Your task to perform on an android device: Google the capital of Canada Image 0: 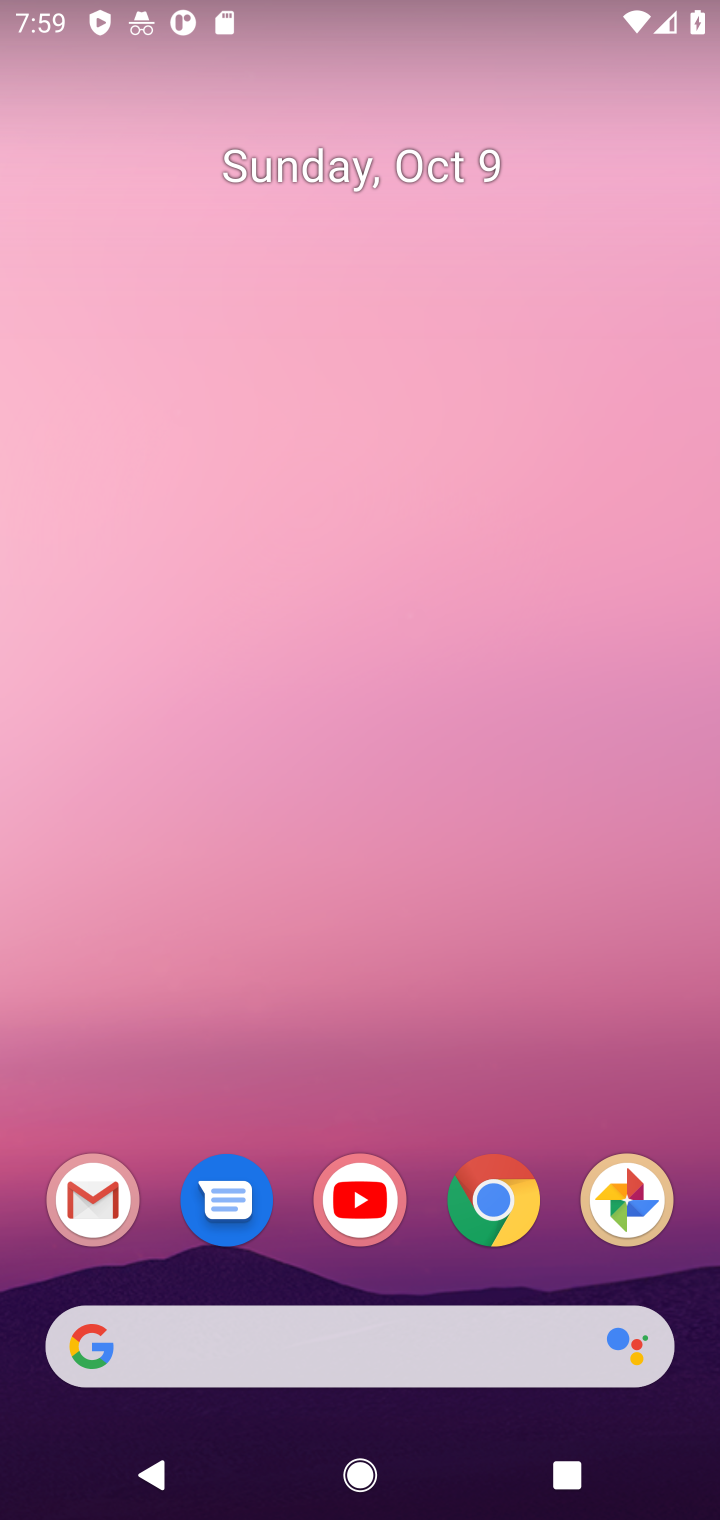
Step 0: click (512, 1218)
Your task to perform on an android device: Google the capital of Canada Image 1: 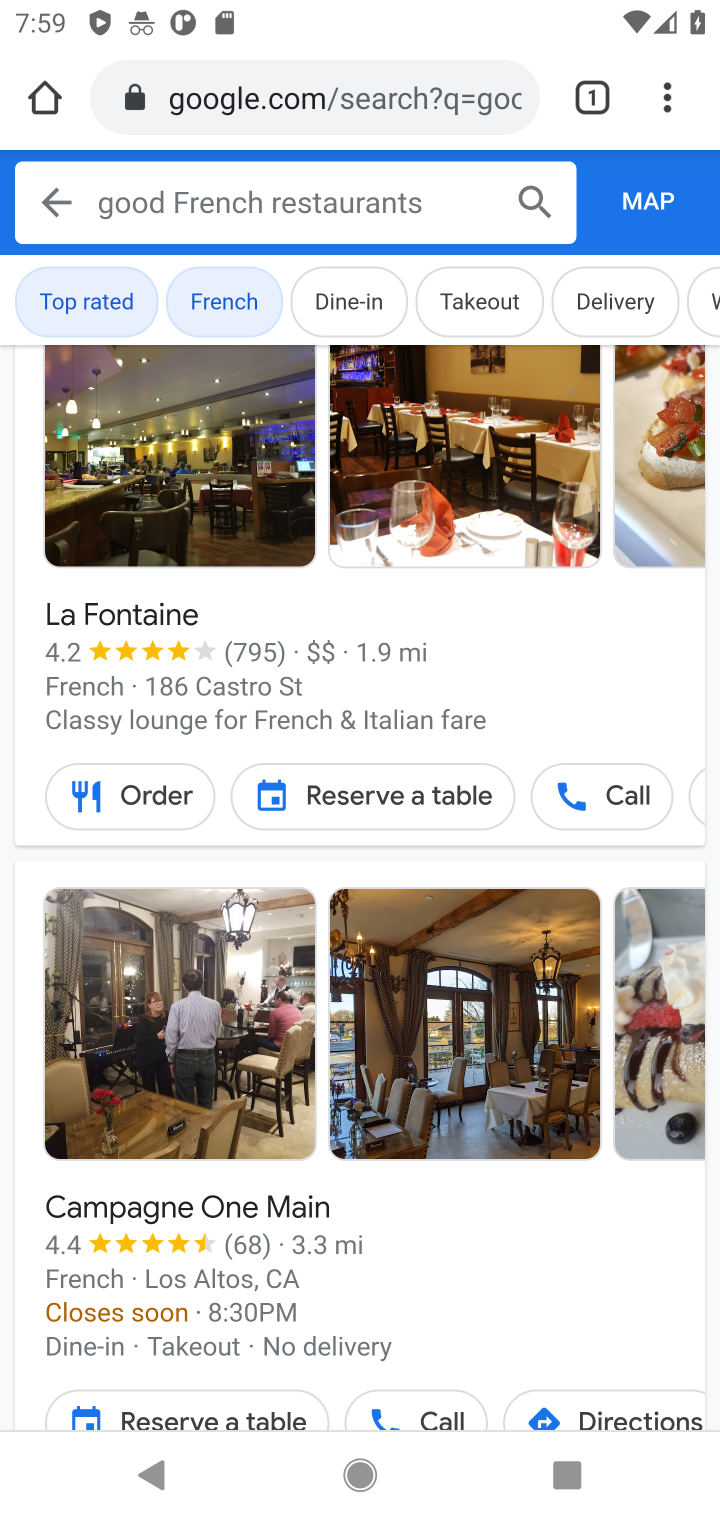
Step 1: click (368, 92)
Your task to perform on an android device: Google the capital of Canada Image 2: 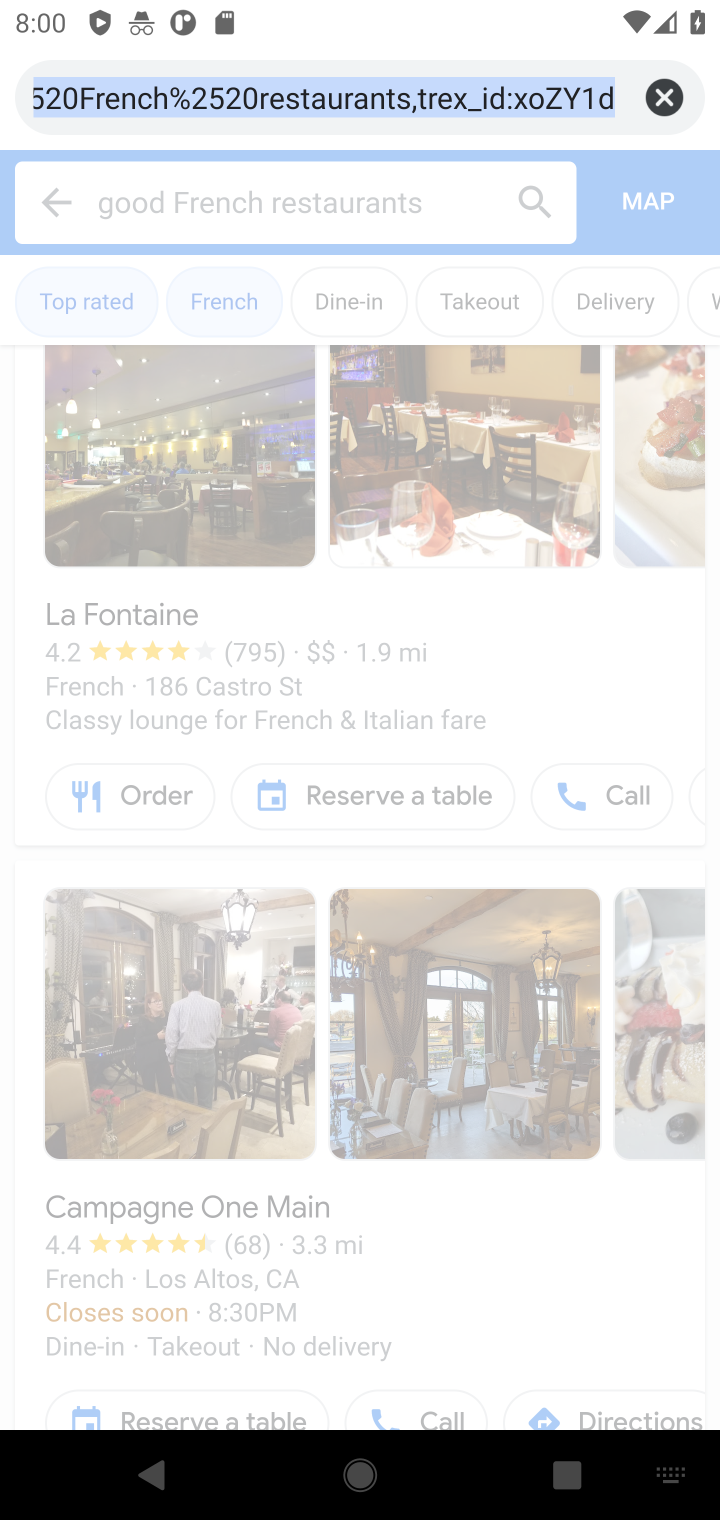
Step 2: type "capital of Canada"
Your task to perform on an android device: Google the capital of Canada Image 3: 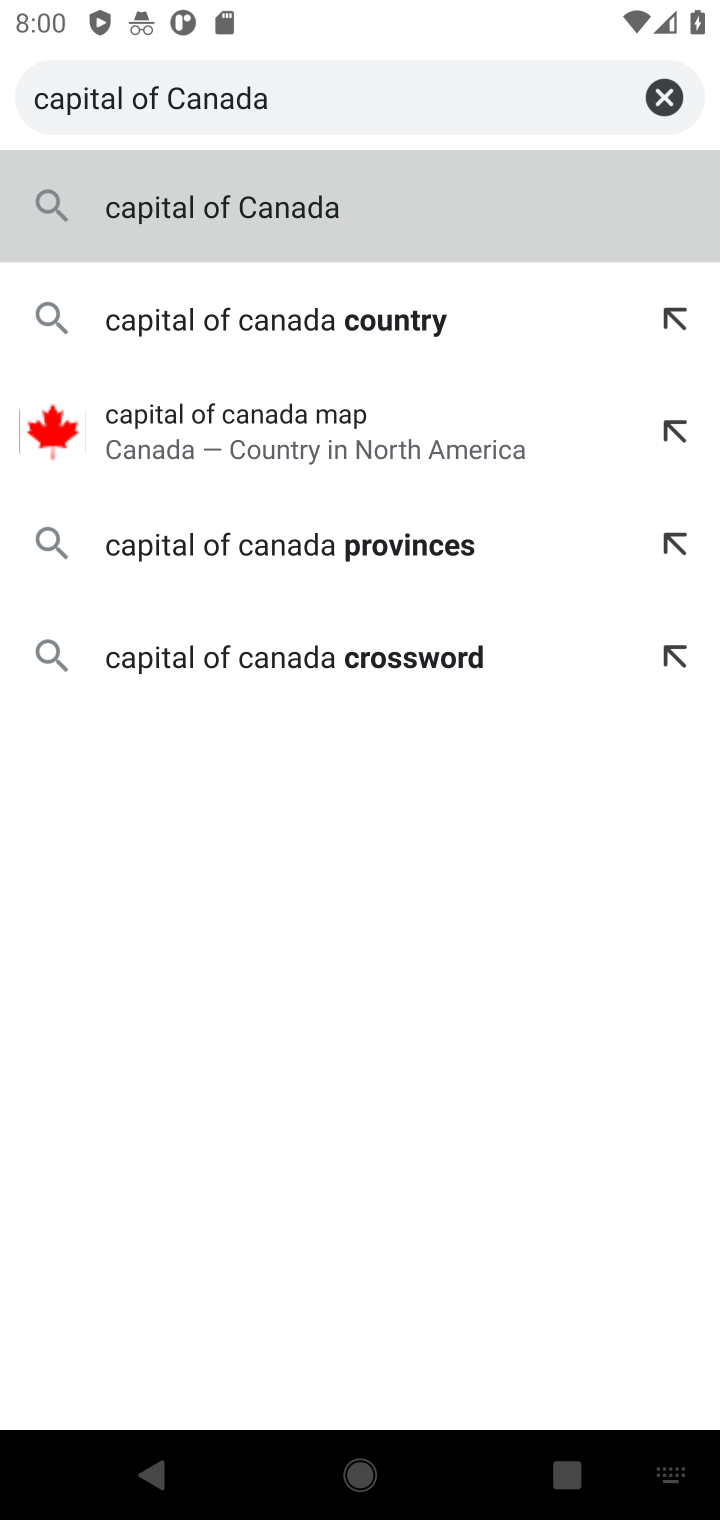
Step 3: click (360, 216)
Your task to perform on an android device: Google the capital of Canada Image 4: 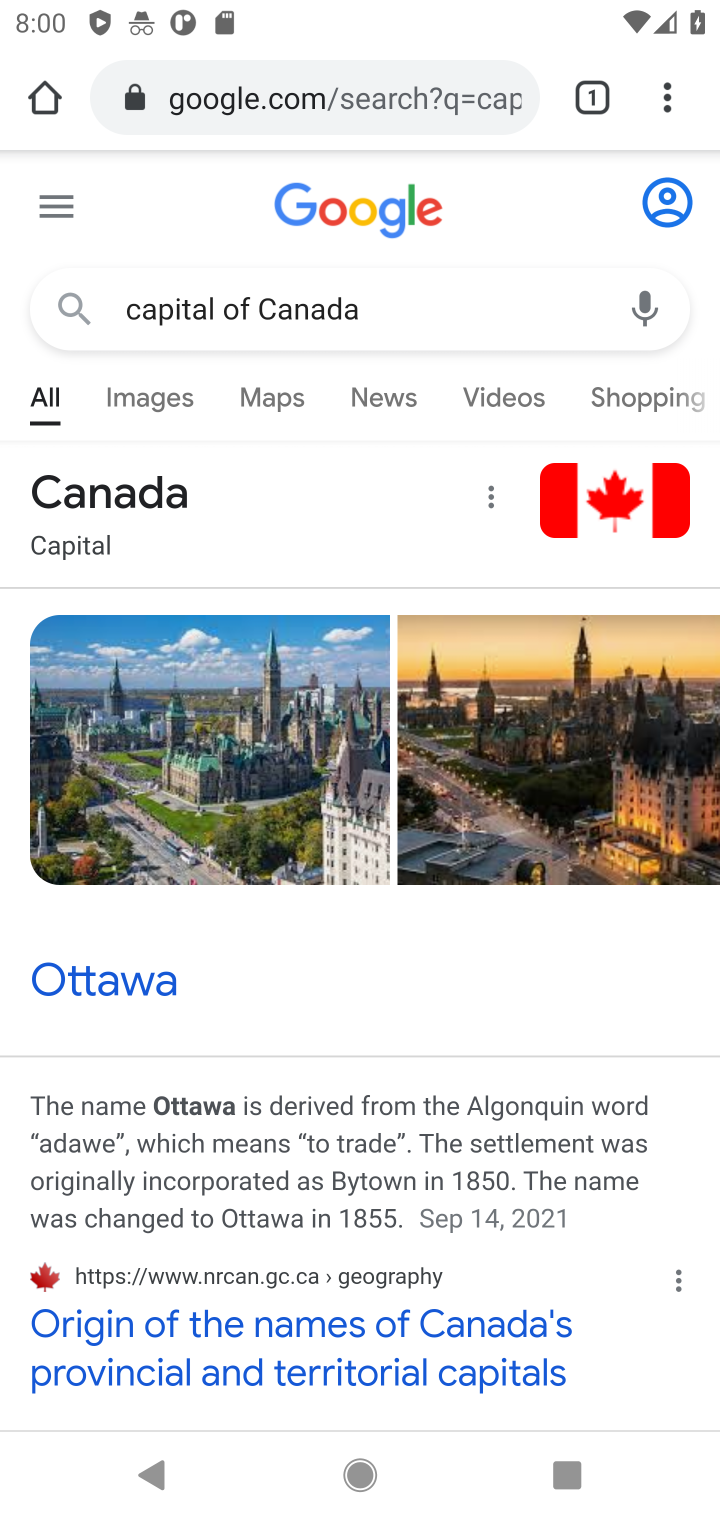
Step 4: task complete